Your task to perform on an android device: Open settings Image 0: 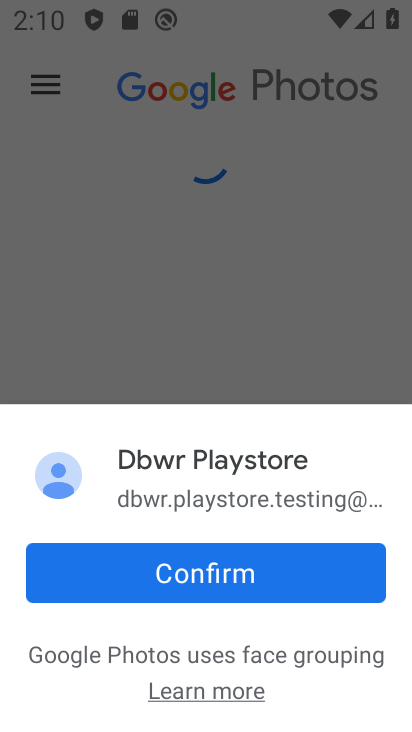
Step 0: press home button
Your task to perform on an android device: Open settings Image 1: 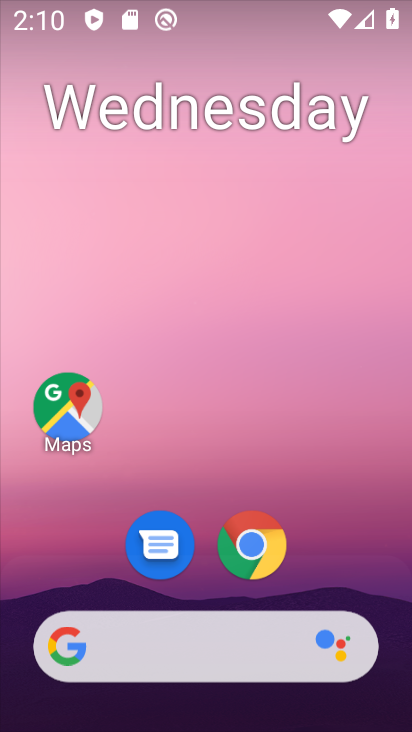
Step 1: drag from (101, 587) to (203, 89)
Your task to perform on an android device: Open settings Image 2: 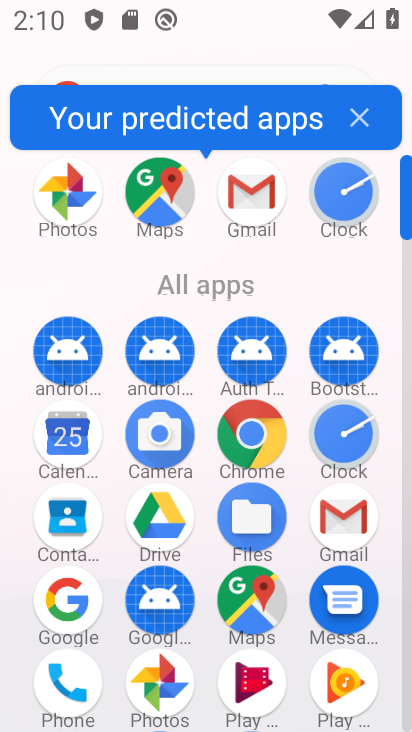
Step 2: drag from (206, 638) to (266, 435)
Your task to perform on an android device: Open settings Image 3: 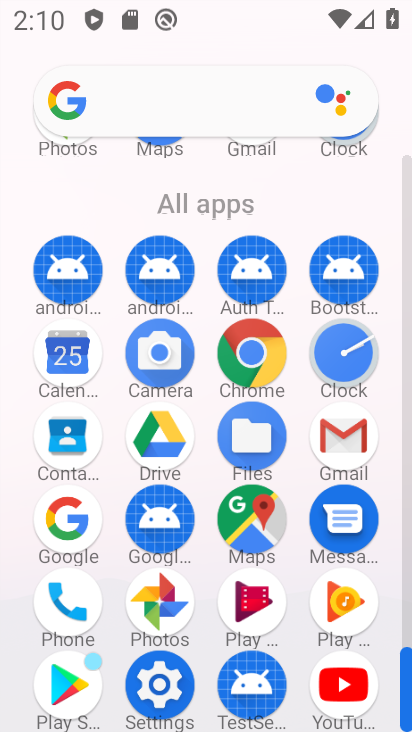
Step 3: click (171, 694)
Your task to perform on an android device: Open settings Image 4: 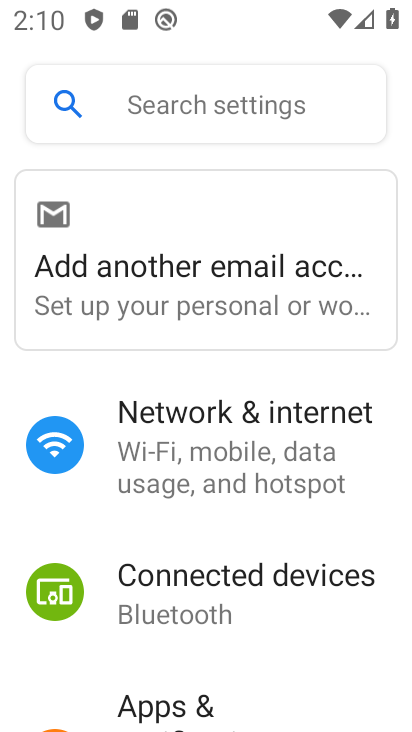
Step 4: task complete